Your task to perform on an android device: Do I have any events today? Image 0: 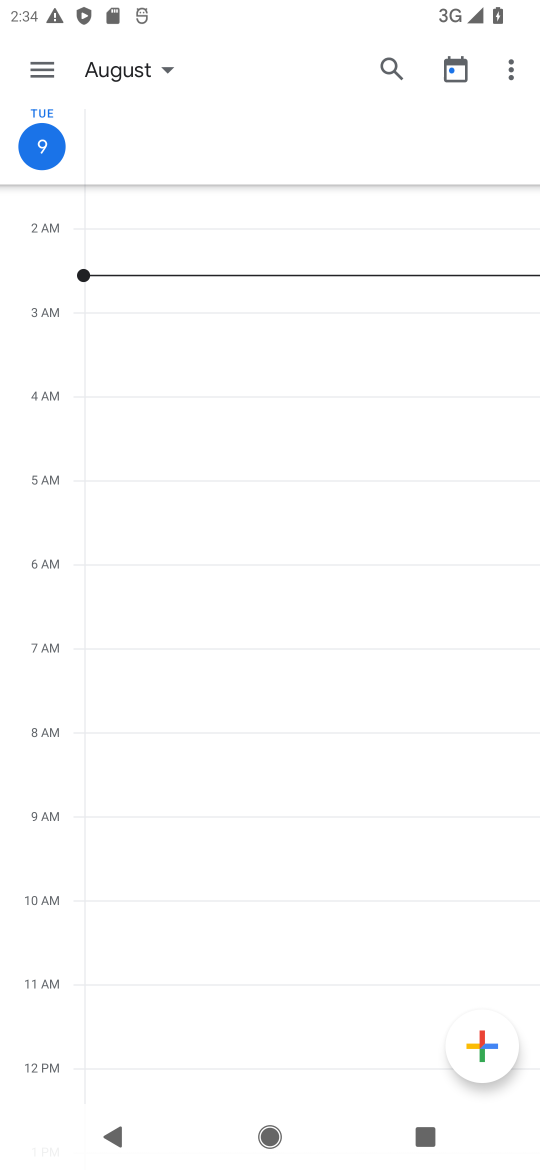
Step 0: task complete